Your task to perform on an android device: Go to battery settings Image 0: 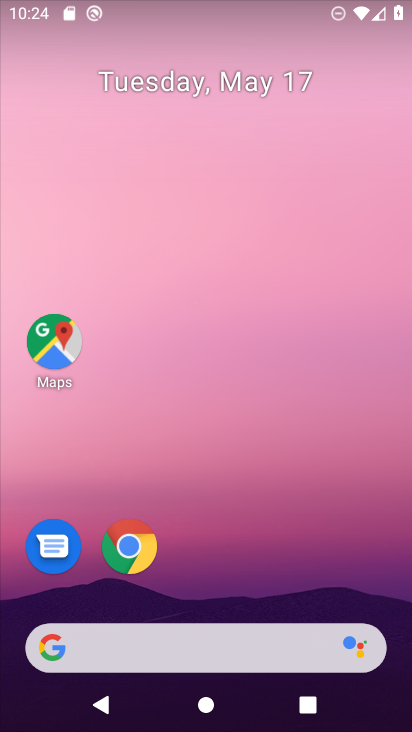
Step 0: drag from (312, 613) to (286, 8)
Your task to perform on an android device: Go to battery settings Image 1: 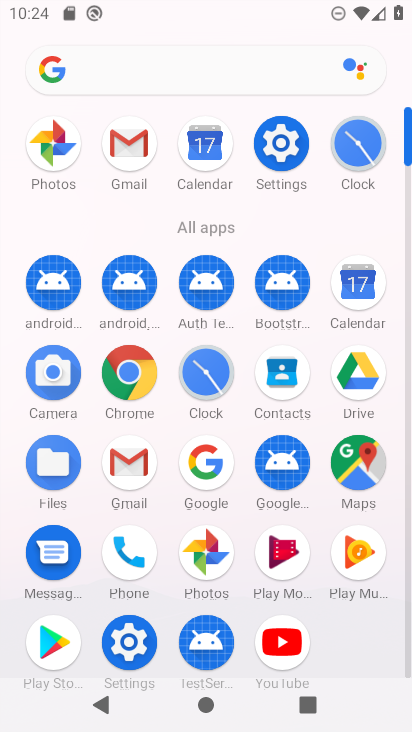
Step 1: click (279, 134)
Your task to perform on an android device: Go to battery settings Image 2: 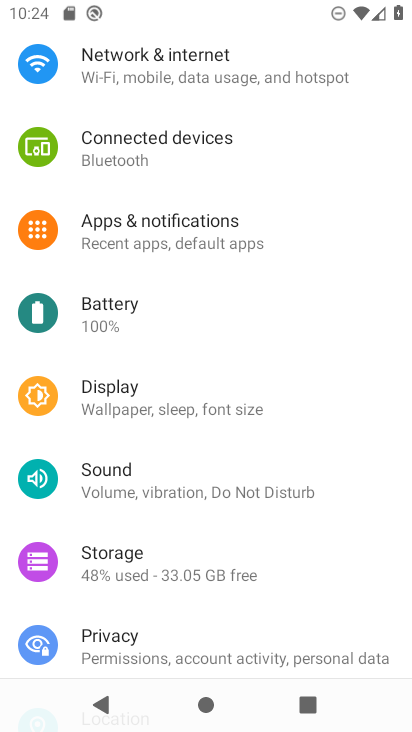
Step 2: click (95, 322)
Your task to perform on an android device: Go to battery settings Image 3: 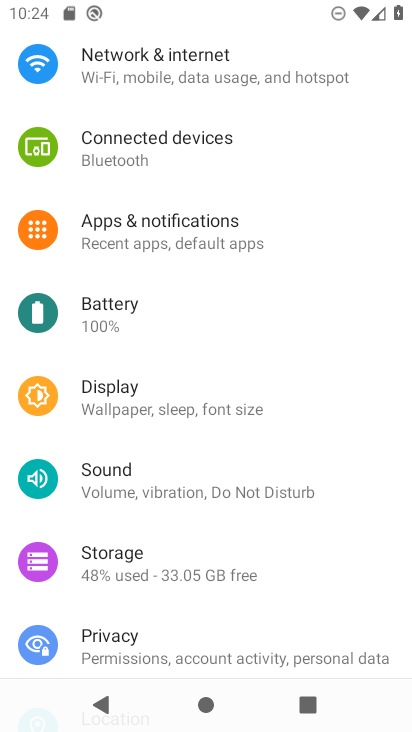
Step 3: click (92, 311)
Your task to perform on an android device: Go to battery settings Image 4: 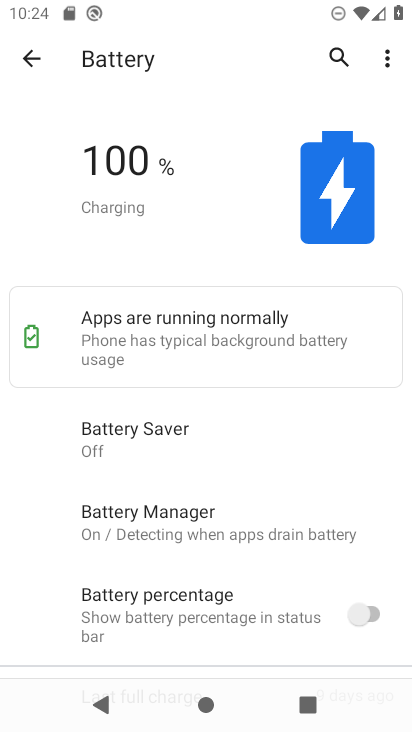
Step 4: task complete